Your task to perform on an android device: toggle notifications settings in the gmail app Image 0: 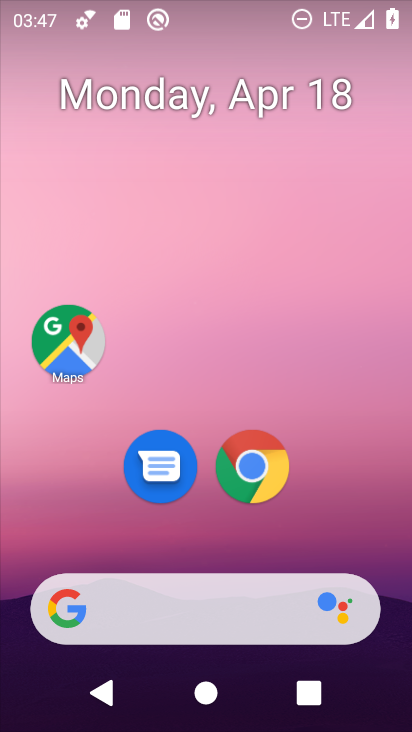
Step 0: drag from (366, 503) to (365, 41)
Your task to perform on an android device: toggle notifications settings in the gmail app Image 1: 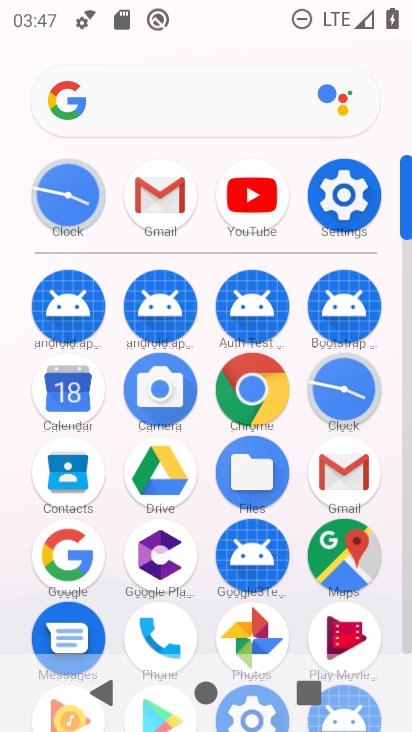
Step 1: click (354, 200)
Your task to perform on an android device: toggle notifications settings in the gmail app Image 2: 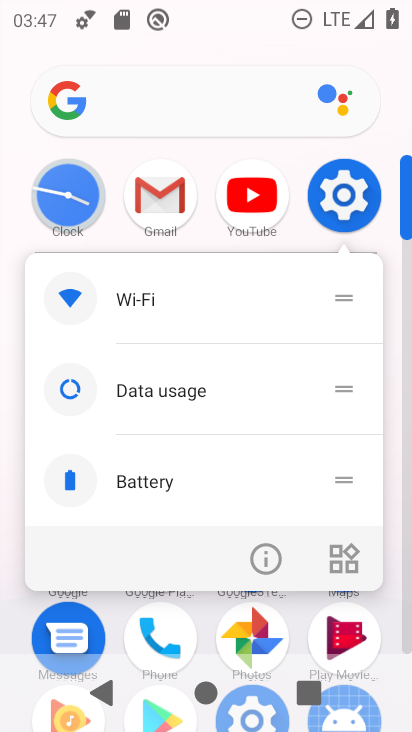
Step 2: click (148, 183)
Your task to perform on an android device: toggle notifications settings in the gmail app Image 3: 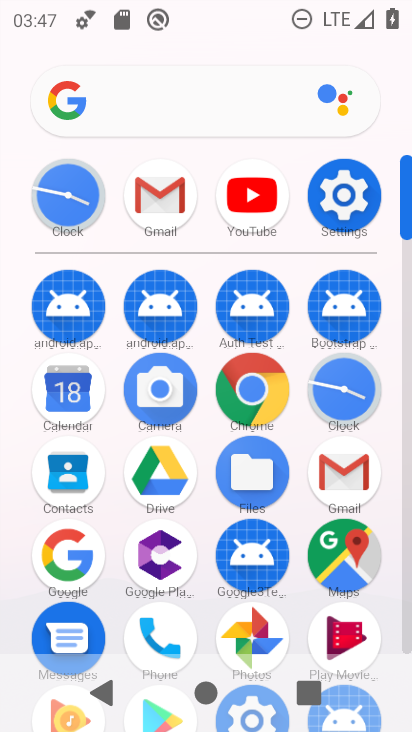
Step 3: click (152, 192)
Your task to perform on an android device: toggle notifications settings in the gmail app Image 4: 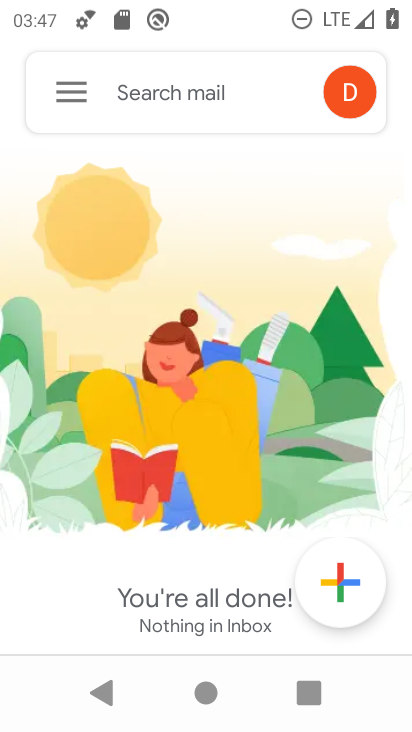
Step 4: click (71, 103)
Your task to perform on an android device: toggle notifications settings in the gmail app Image 5: 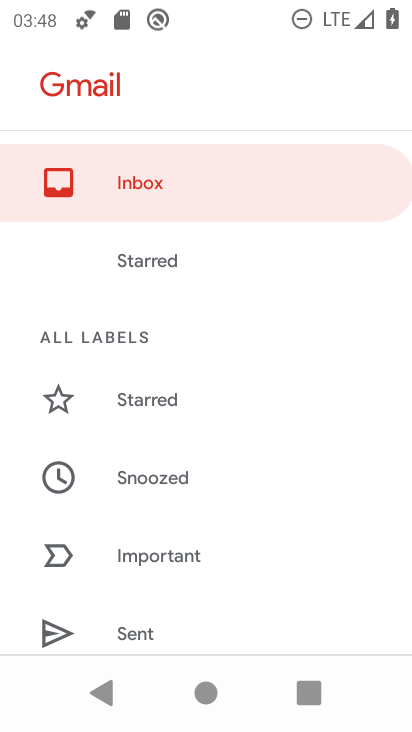
Step 5: drag from (120, 604) to (211, 209)
Your task to perform on an android device: toggle notifications settings in the gmail app Image 6: 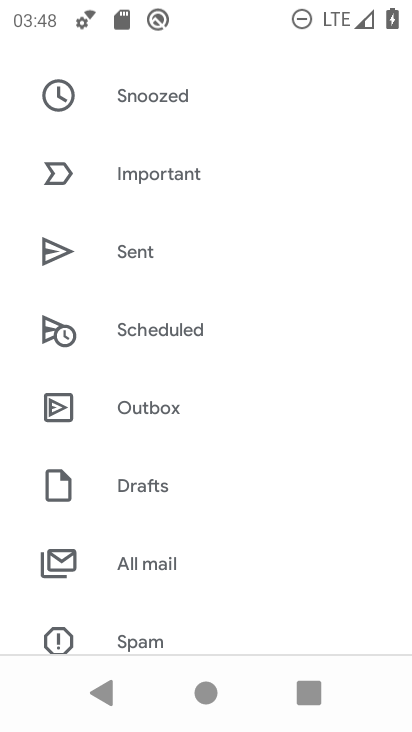
Step 6: drag from (185, 579) to (269, 102)
Your task to perform on an android device: toggle notifications settings in the gmail app Image 7: 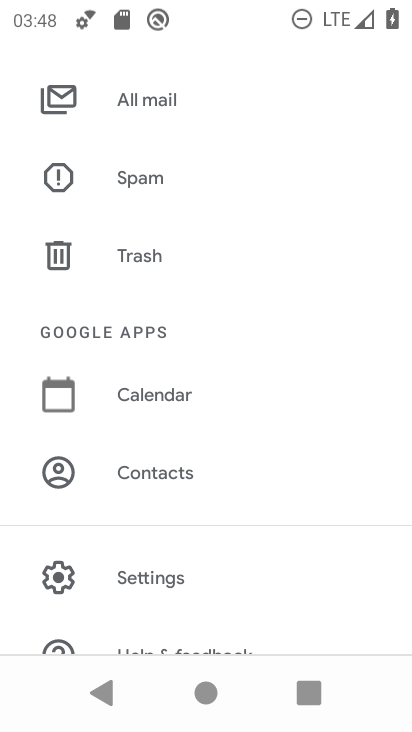
Step 7: click (259, 564)
Your task to perform on an android device: toggle notifications settings in the gmail app Image 8: 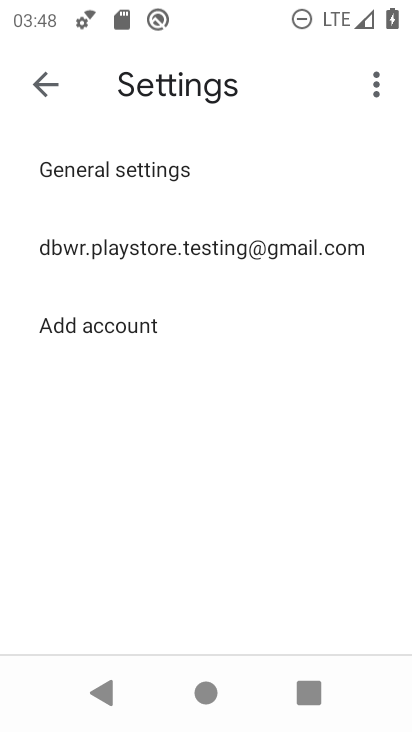
Step 8: click (184, 186)
Your task to perform on an android device: toggle notifications settings in the gmail app Image 9: 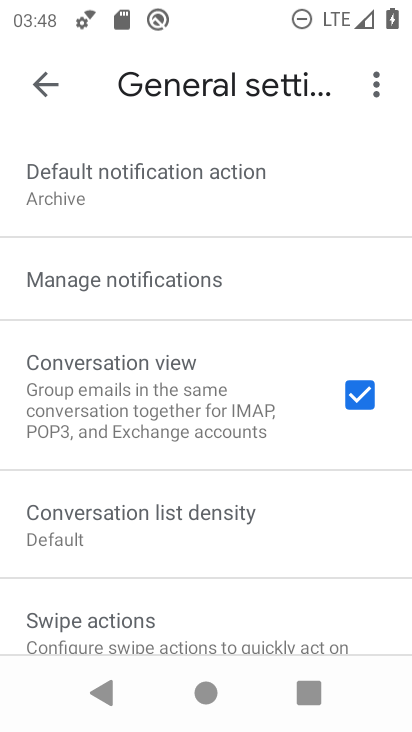
Step 9: click (293, 305)
Your task to perform on an android device: toggle notifications settings in the gmail app Image 10: 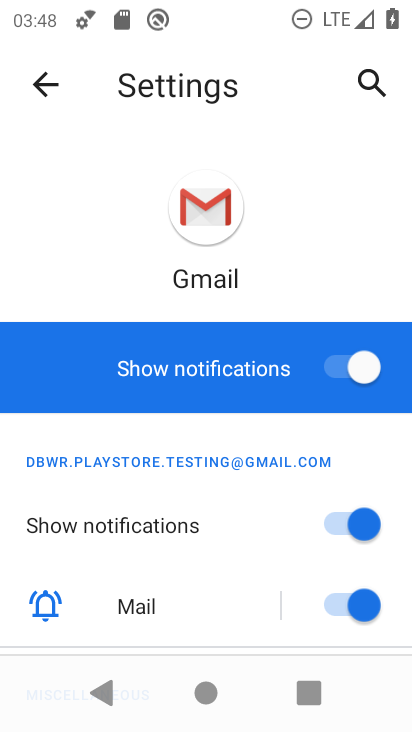
Step 10: click (250, 360)
Your task to perform on an android device: toggle notifications settings in the gmail app Image 11: 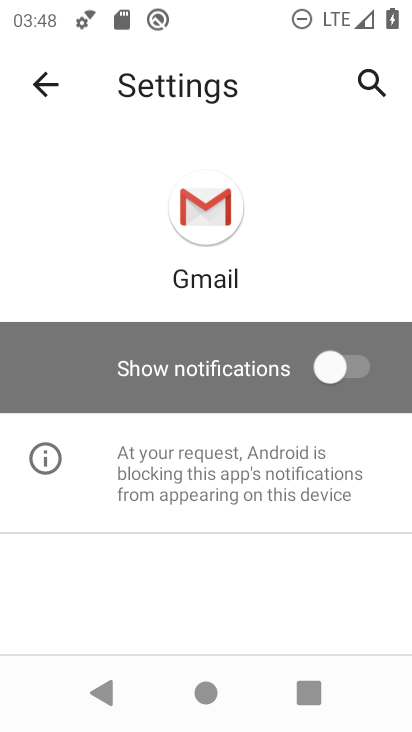
Step 11: task complete